Your task to perform on an android device: Clear the shopping cart on newegg.com. Add "dell xps" to the cart on newegg.com, then select checkout. Image 0: 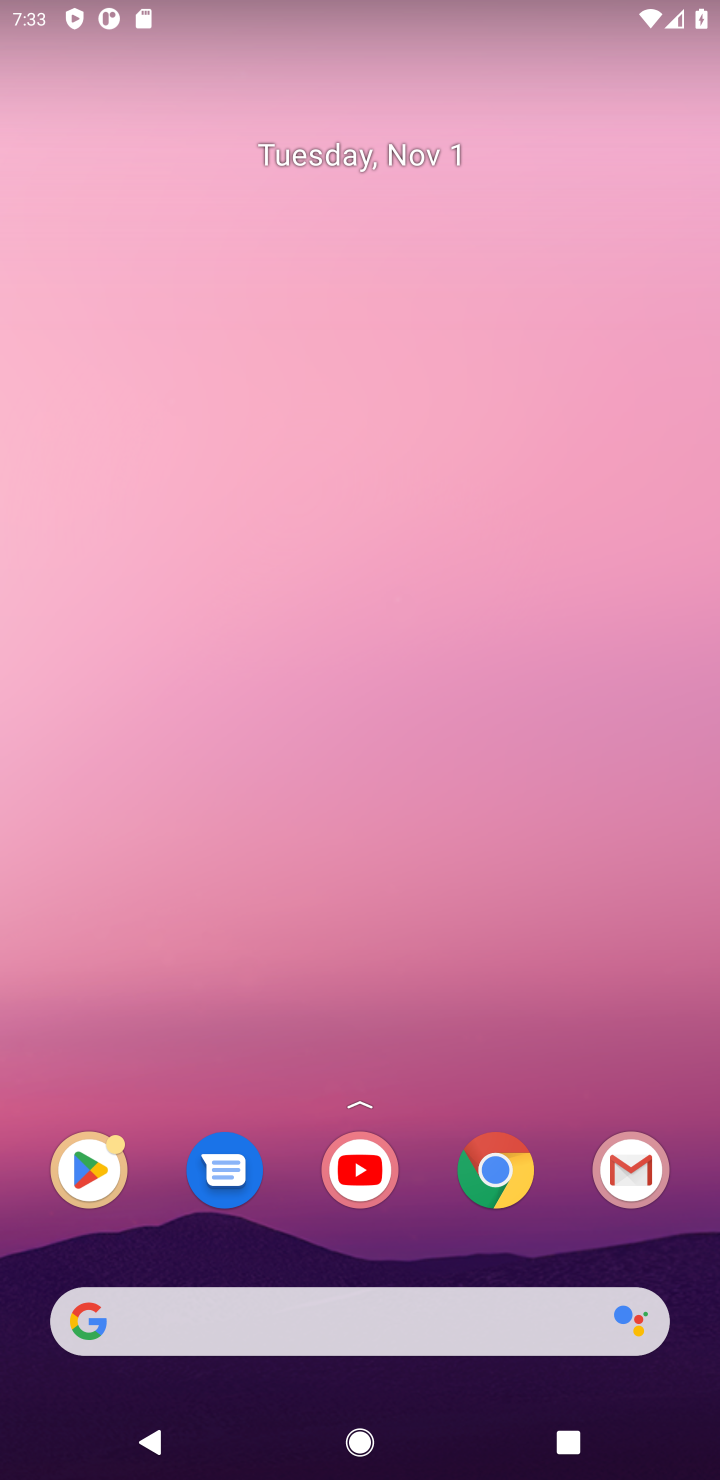
Step 0: click (515, 1177)
Your task to perform on an android device: Clear the shopping cart on newegg.com. Add "dell xps" to the cart on newegg.com, then select checkout. Image 1: 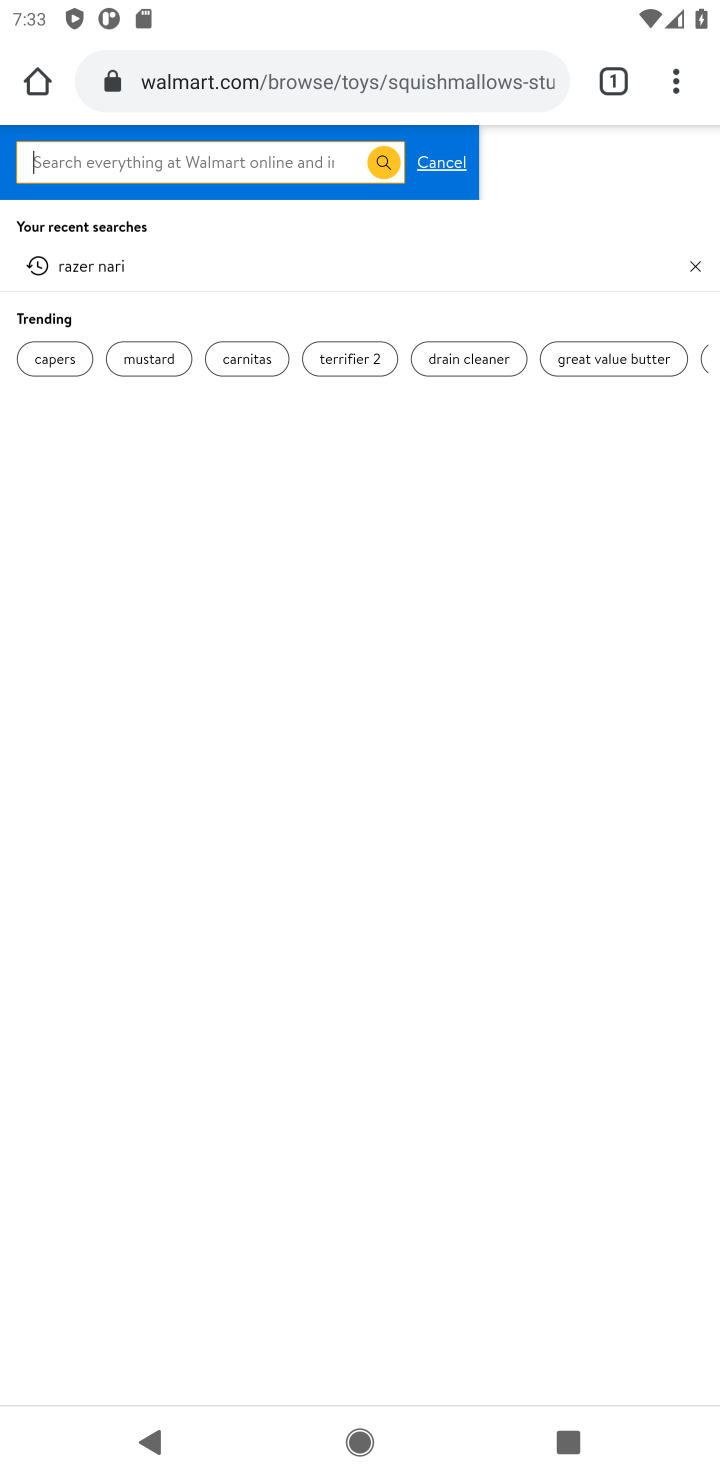
Step 1: click (512, 81)
Your task to perform on an android device: Clear the shopping cart on newegg.com. Add "dell xps" to the cart on newegg.com, then select checkout. Image 2: 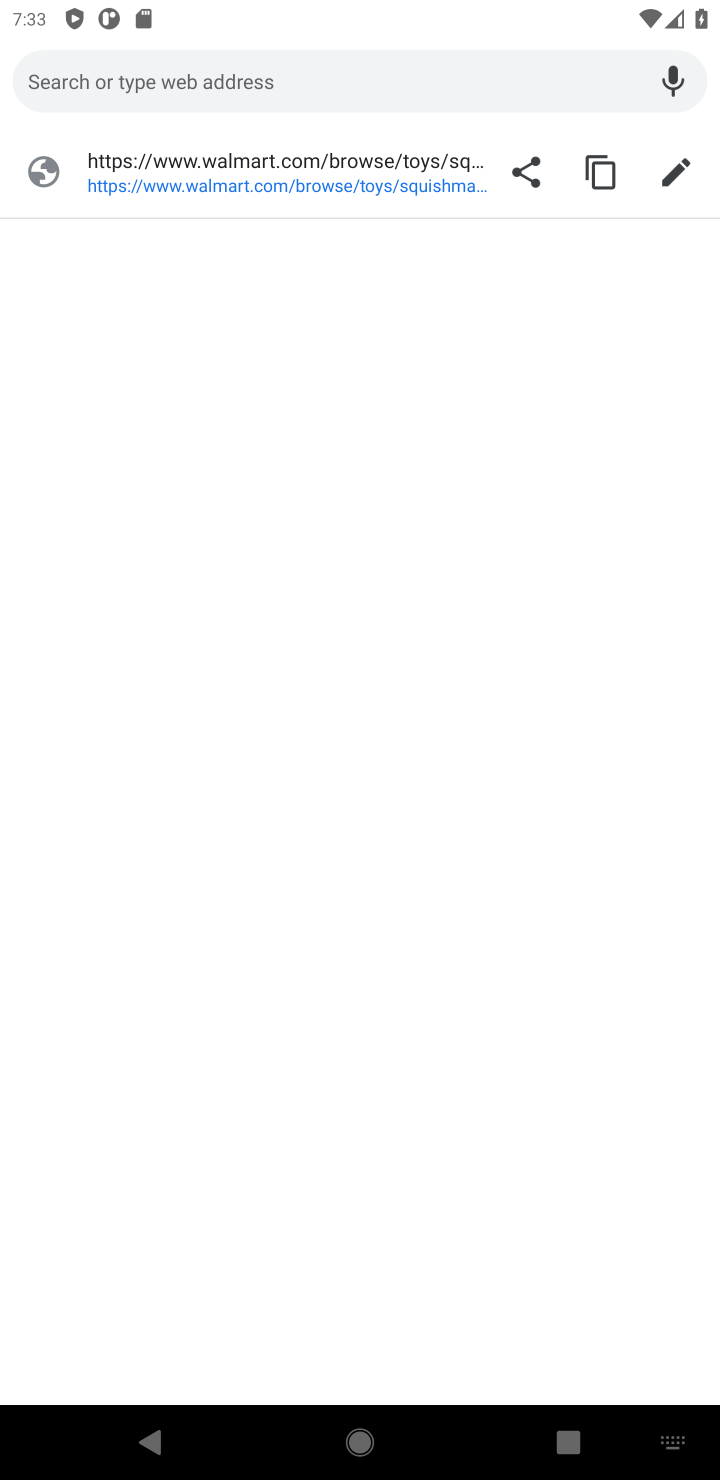
Step 2: type "newegg.com"
Your task to perform on an android device: Clear the shopping cart on newegg.com. Add "dell xps" to the cart on newegg.com, then select checkout. Image 3: 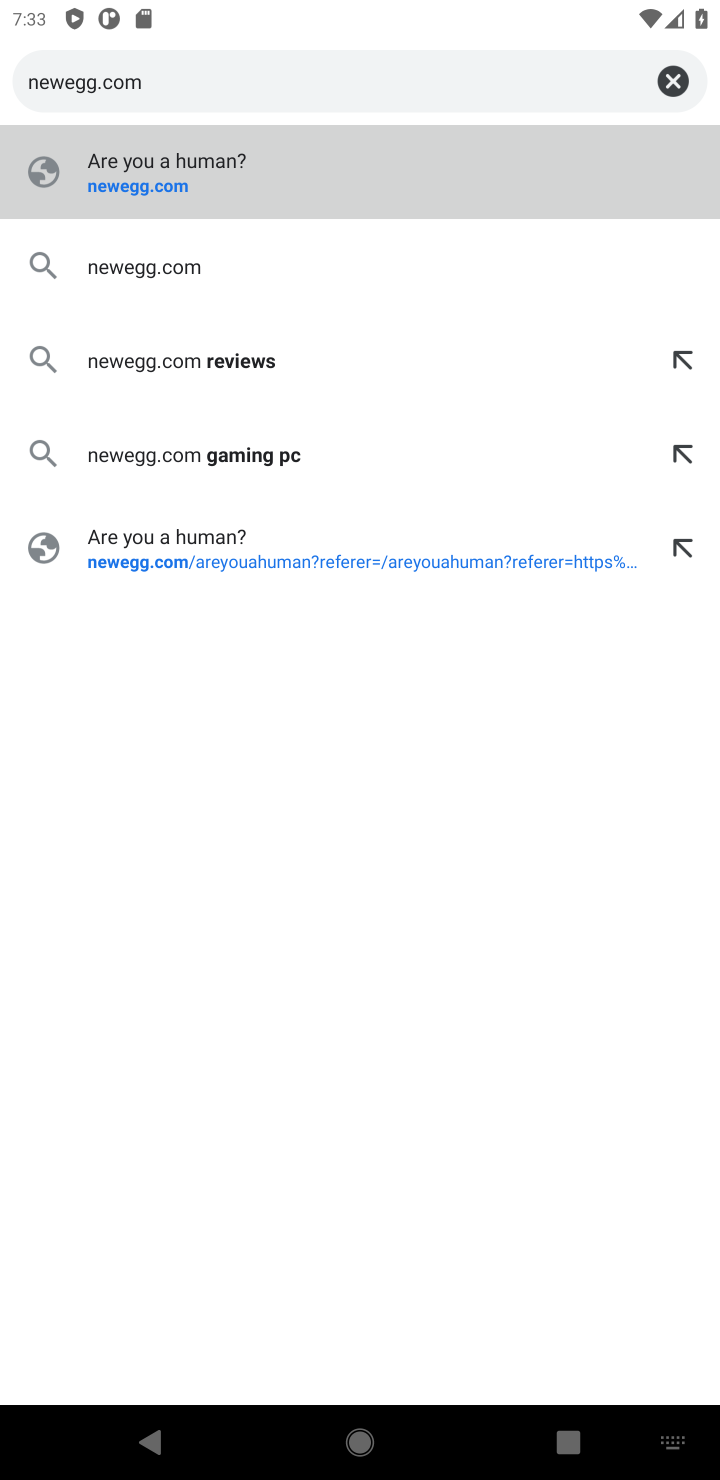
Step 3: type ""
Your task to perform on an android device: Clear the shopping cart on newegg.com. Add "dell xps" to the cart on newegg.com, then select checkout. Image 4: 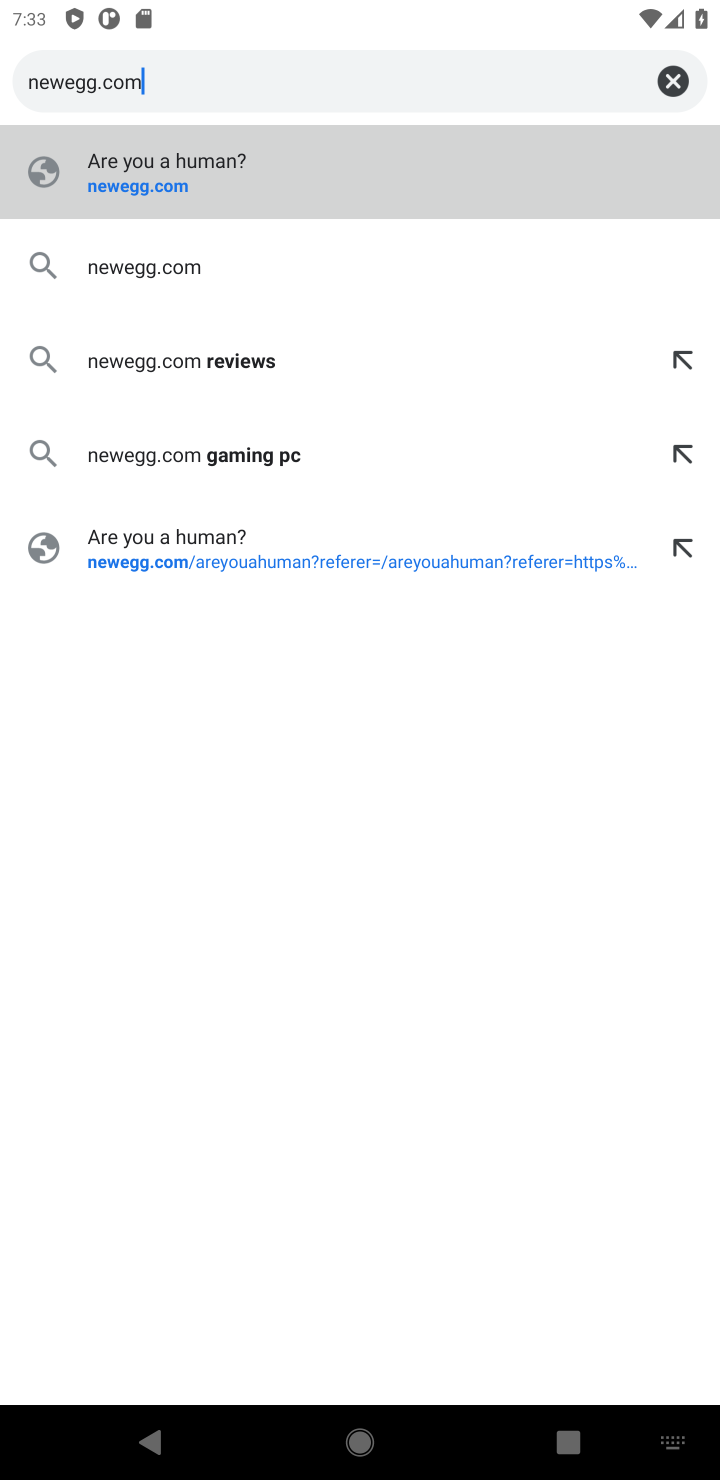
Step 4: press enter
Your task to perform on an android device: Clear the shopping cart on newegg.com. Add "dell xps" to the cart on newegg.com, then select checkout. Image 5: 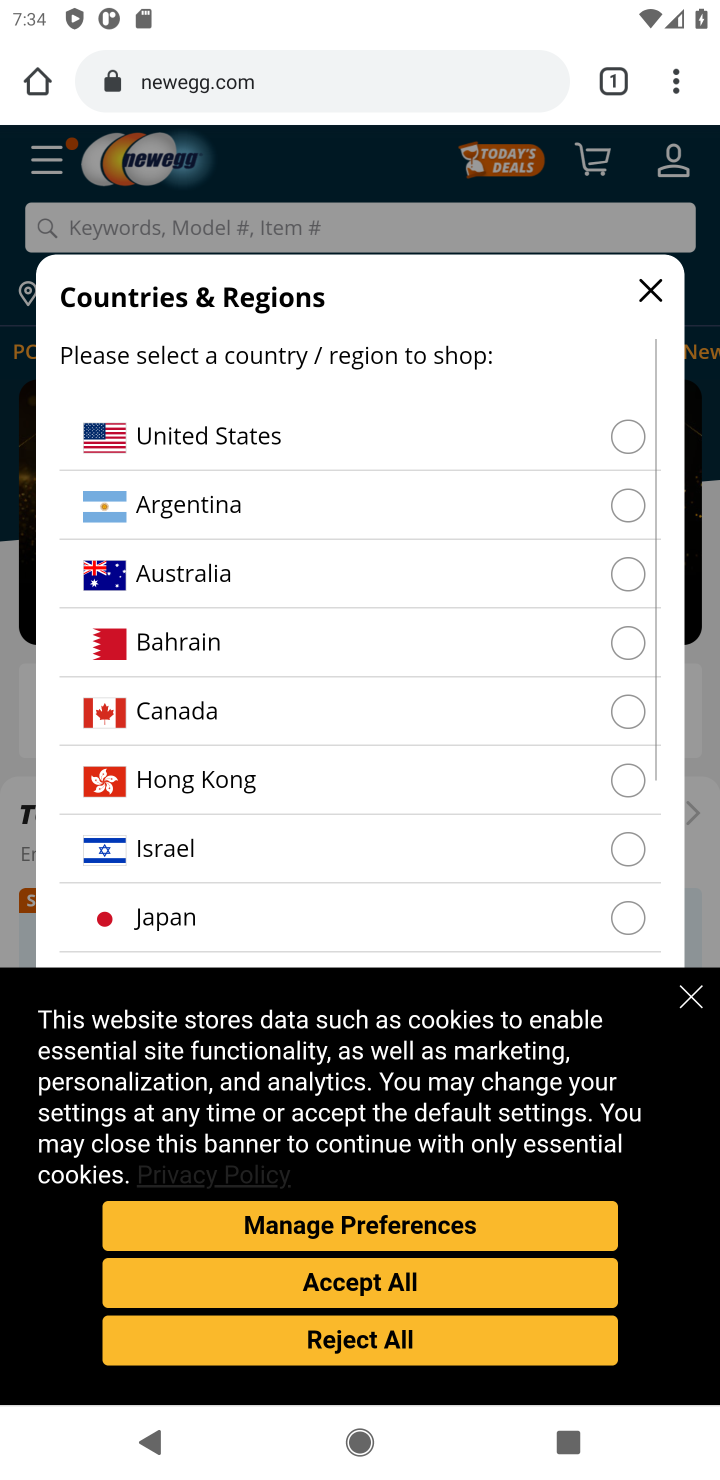
Step 5: click (390, 1284)
Your task to perform on an android device: Clear the shopping cart on newegg.com. Add "dell xps" to the cart on newegg.com, then select checkout. Image 6: 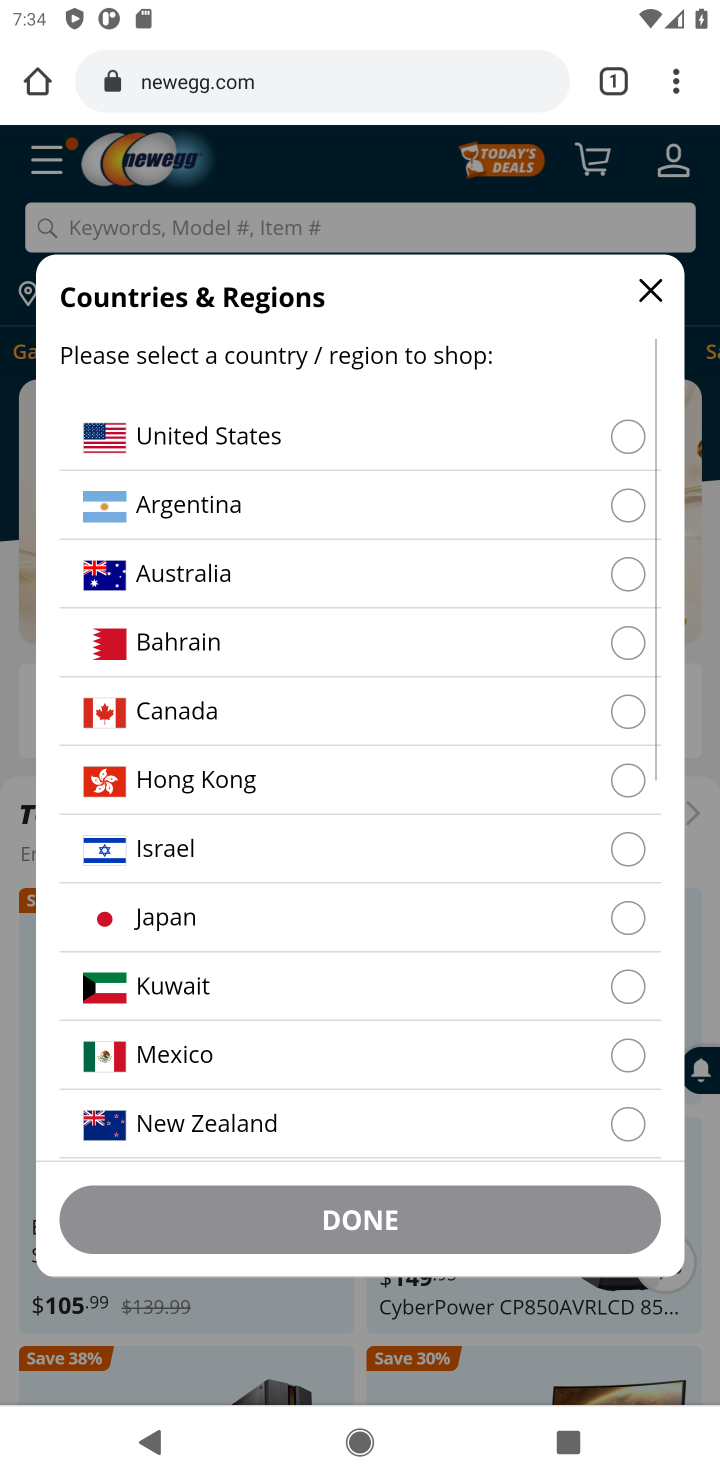
Step 6: click (619, 442)
Your task to perform on an android device: Clear the shopping cart on newegg.com. Add "dell xps" to the cart on newegg.com, then select checkout. Image 7: 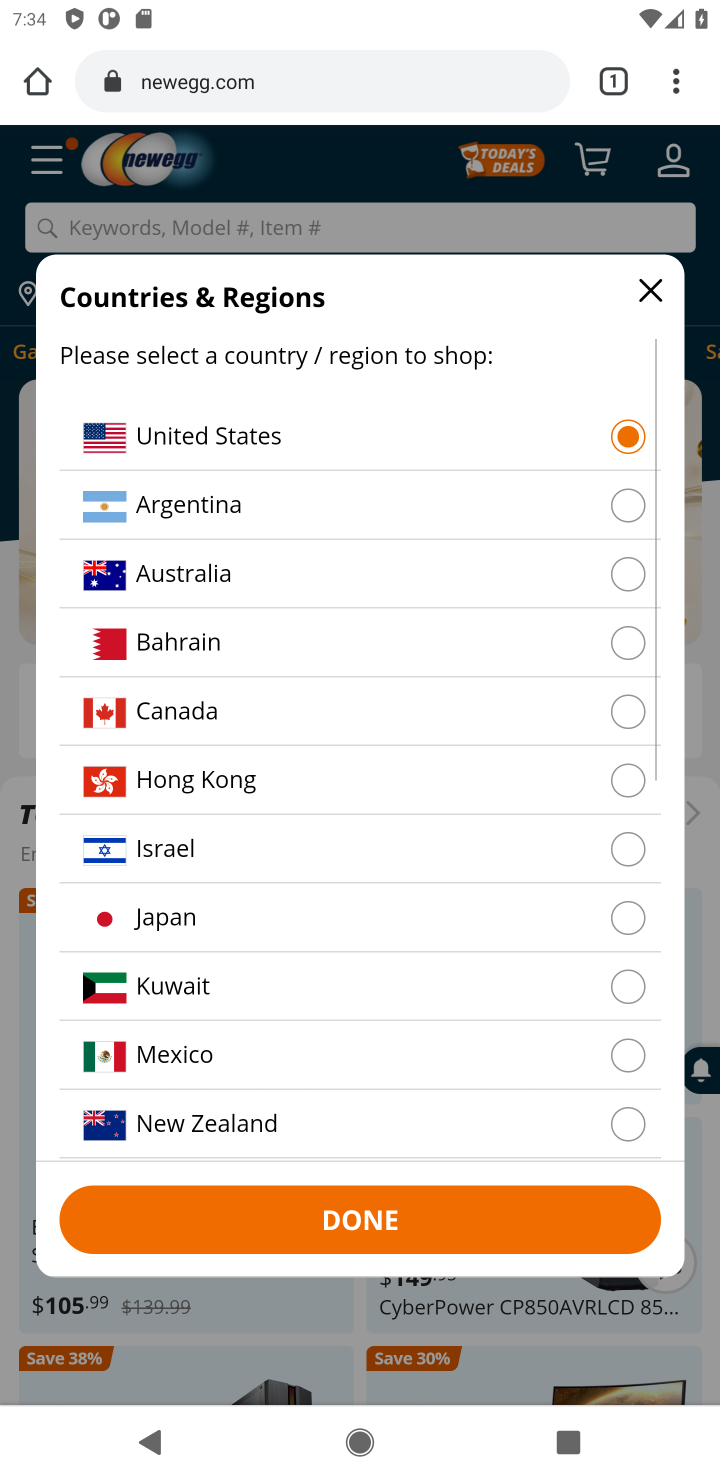
Step 7: click (450, 1222)
Your task to perform on an android device: Clear the shopping cart on newegg.com. Add "dell xps" to the cart on newegg.com, then select checkout. Image 8: 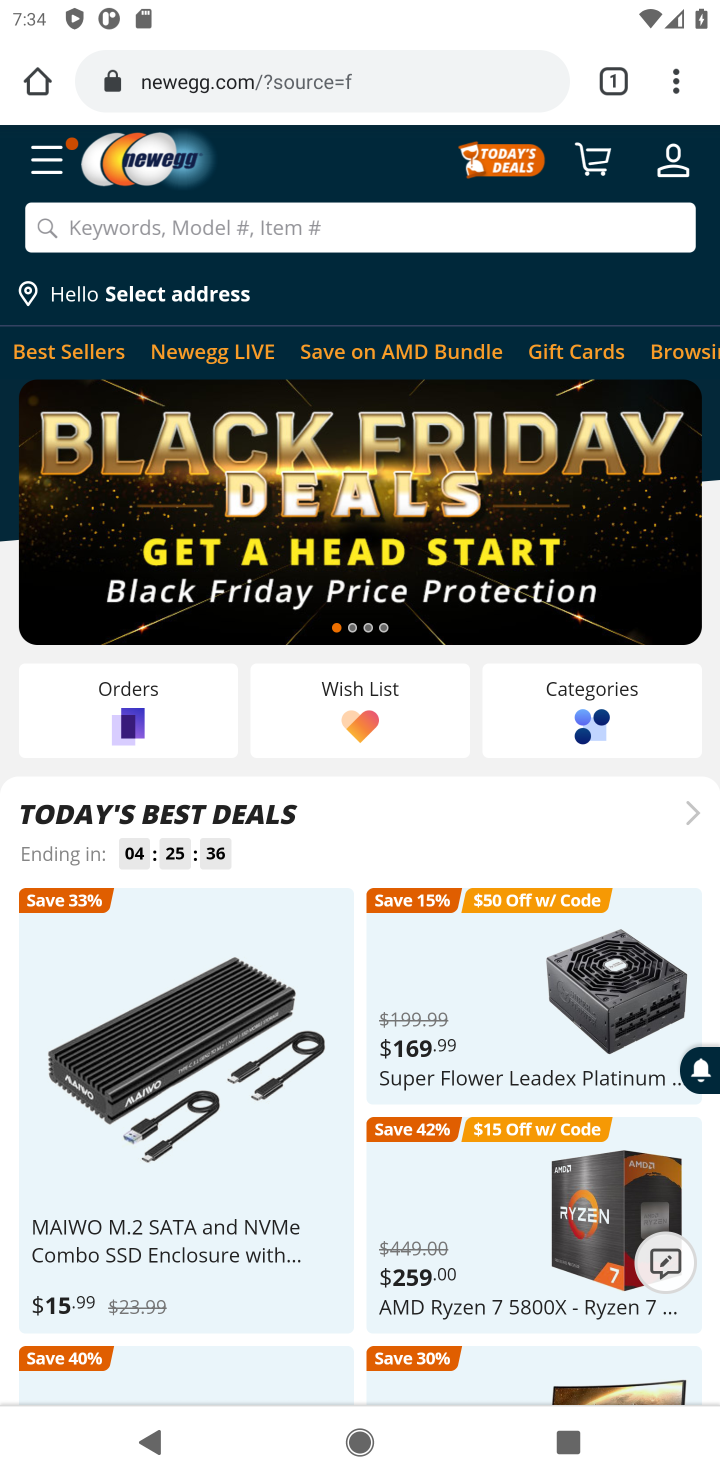
Step 8: click (586, 168)
Your task to perform on an android device: Clear the shopping cart on newegg.com. Add "dell xps" to the cart on newegg.com, then select checkout. Image 9: 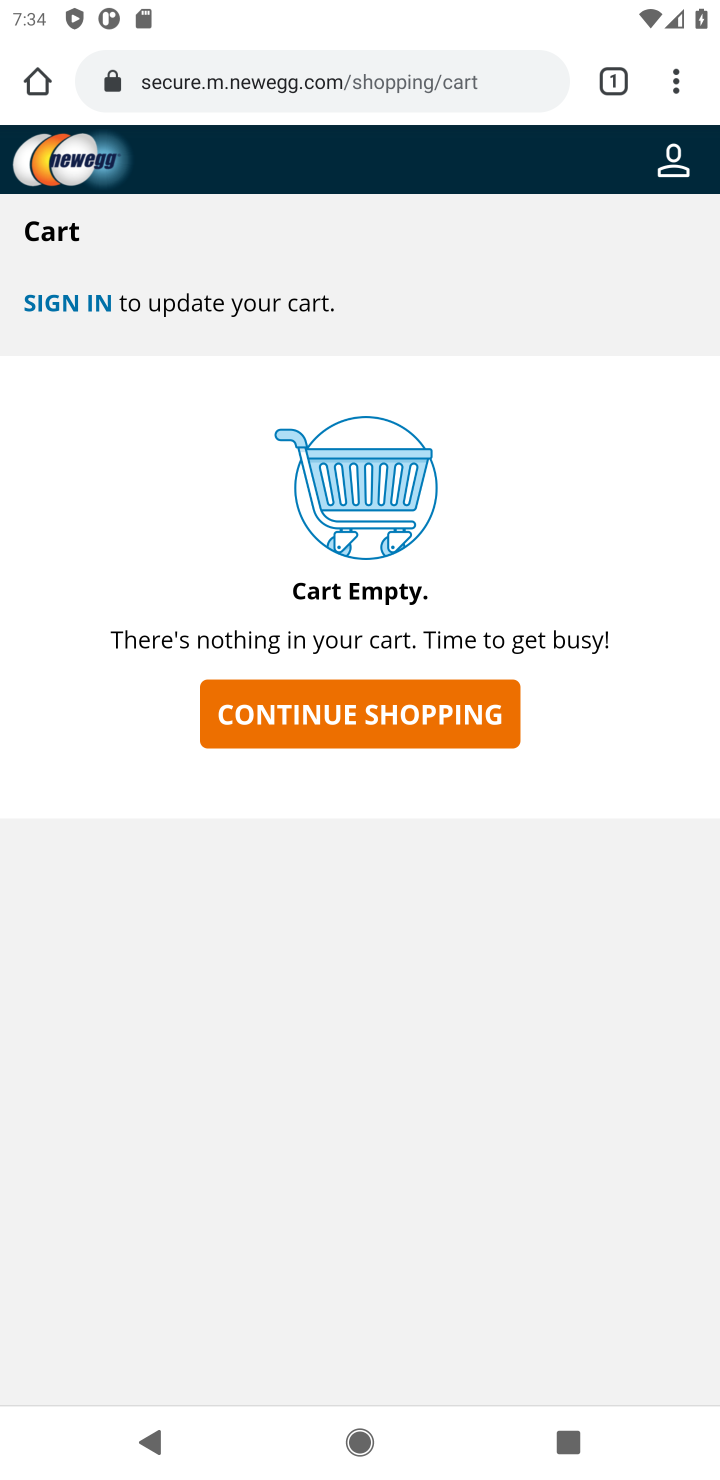
Step 9: click (396, 726)
Your task to perform on an android device: Clear the shopping cart on newegg.com. Add "dell xps" to the cart on newegg.com, then select checkout. Image 10: 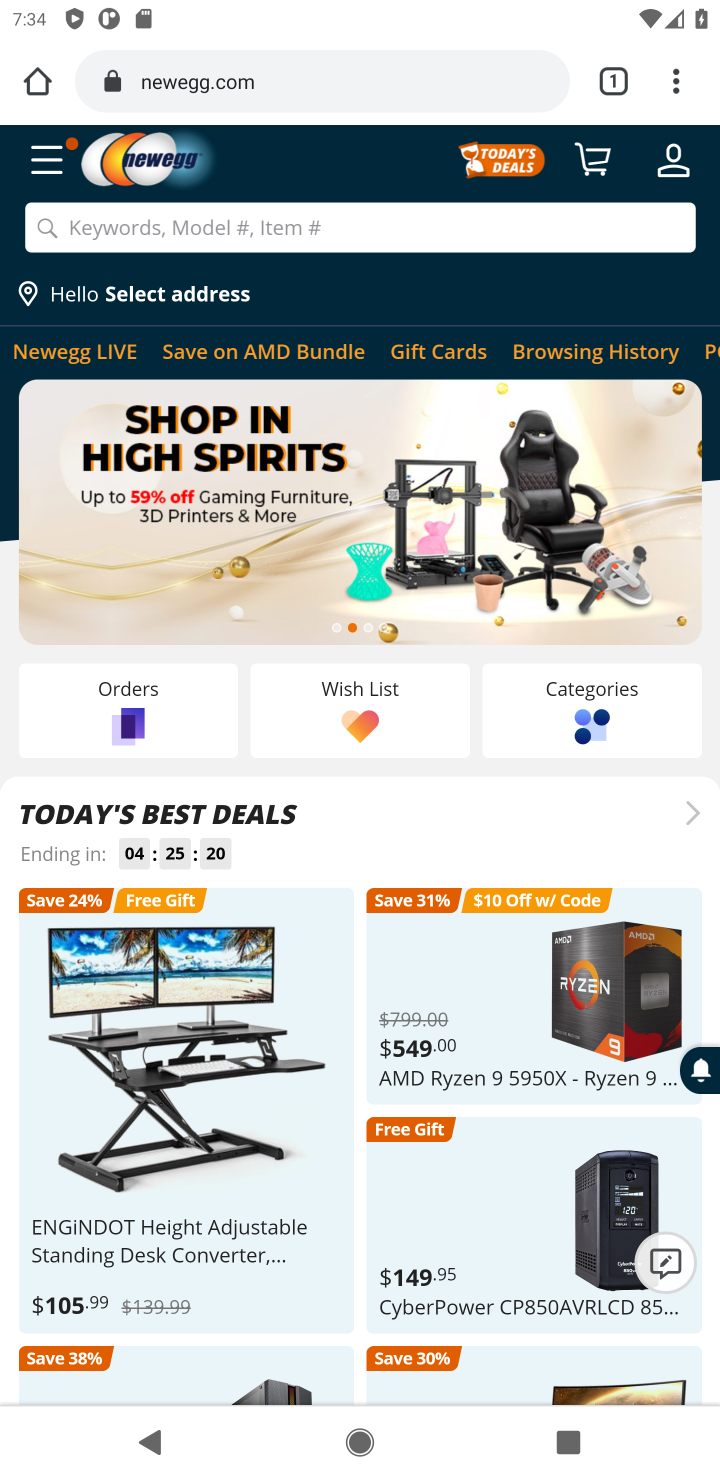
Step 10: click (271, 216)
Your task to perform on an android device: Clear the shopping cart on newegg.com. Add "dell xps" to the cart on newegg.com, then select checkout. Image 11: 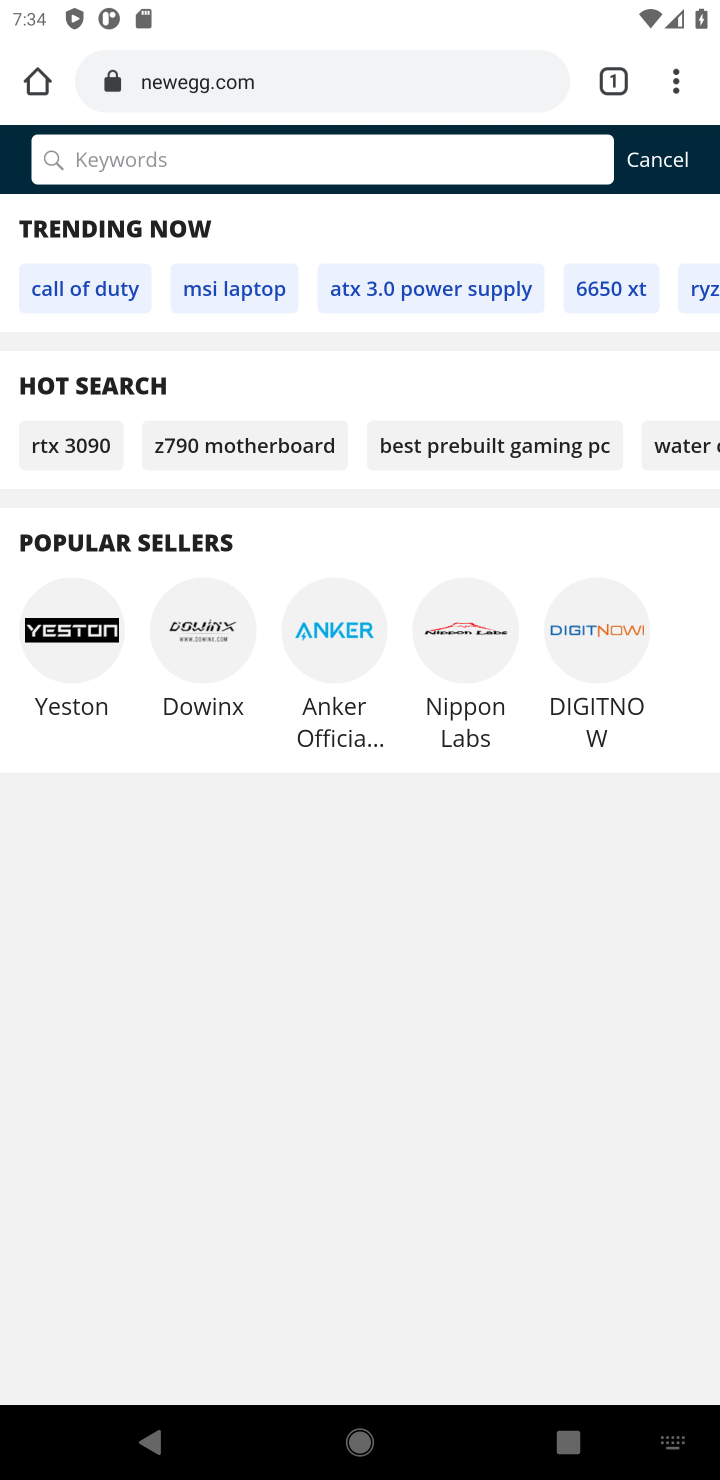
Step 11: type "dell xps"
Your task to perform on an android device: Clear the shopping cart on newegg.com. Add "dell xps" to the cart on newegg.com, then select checkout. Image 12: 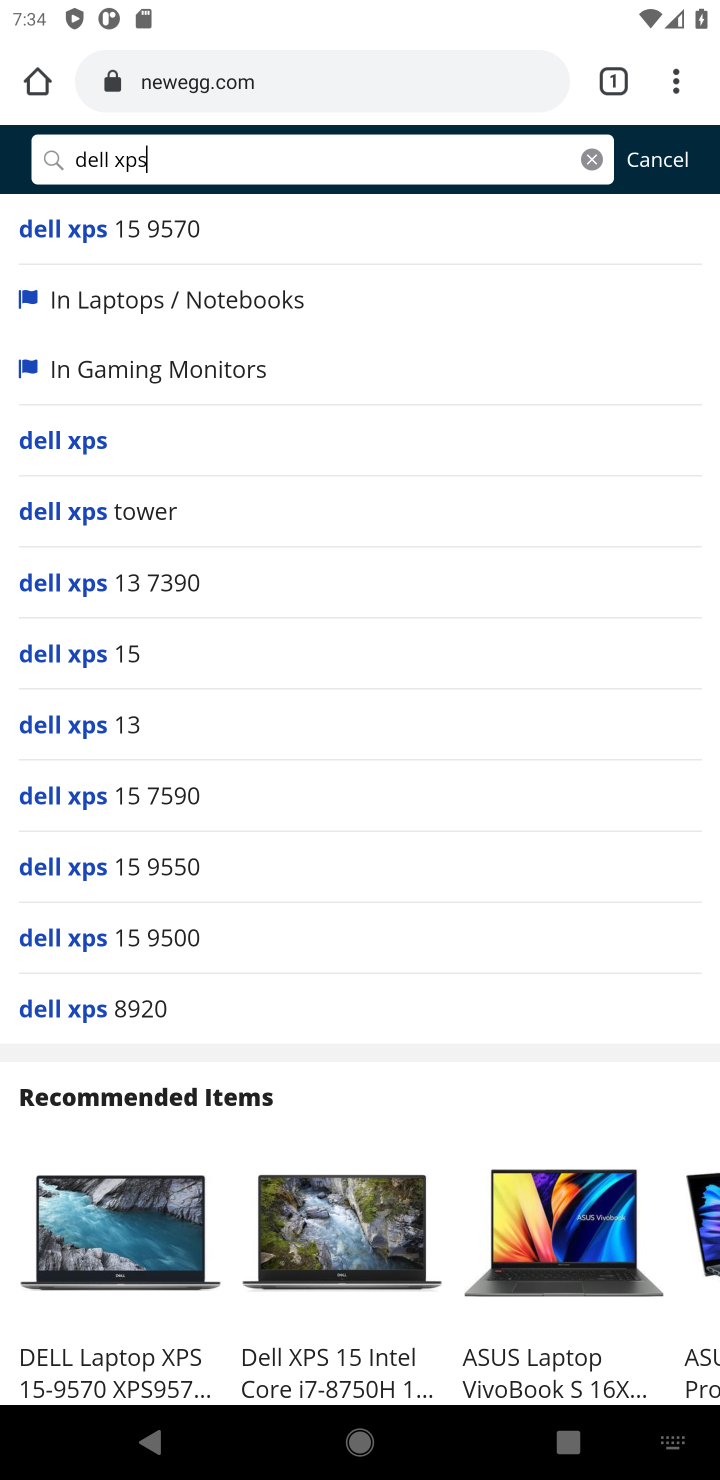
Step 12: press enter
Your task to perform on an android device: Clear the shopping cart on newegg.com. Add "dell xps" to the cart on newegg.com, then select checkout. Image 13: 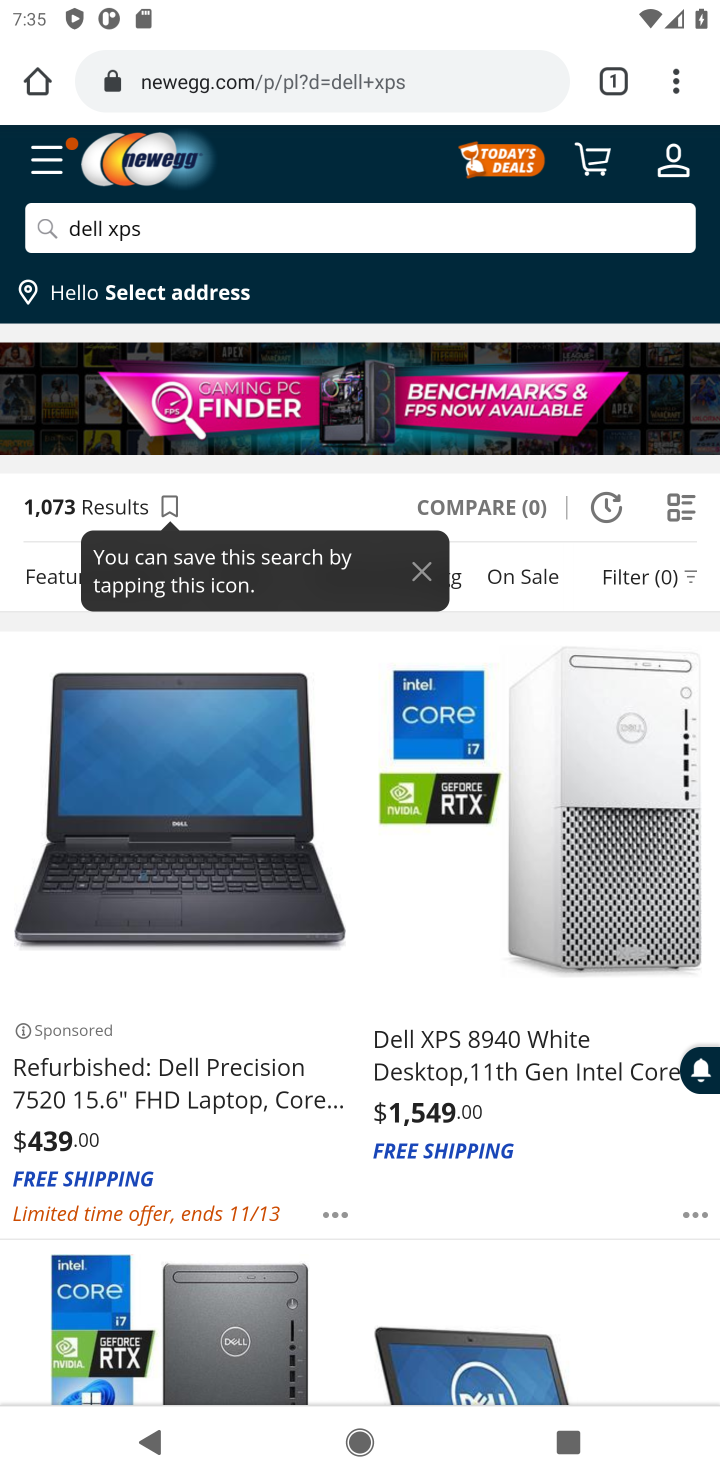
Step 13: click (506, 1006)
Your task to perform on an android device: Clear the shopping cart on newegg.com. Add "dell xps" to the cart on newegg.com, then select checkout. Image 14: 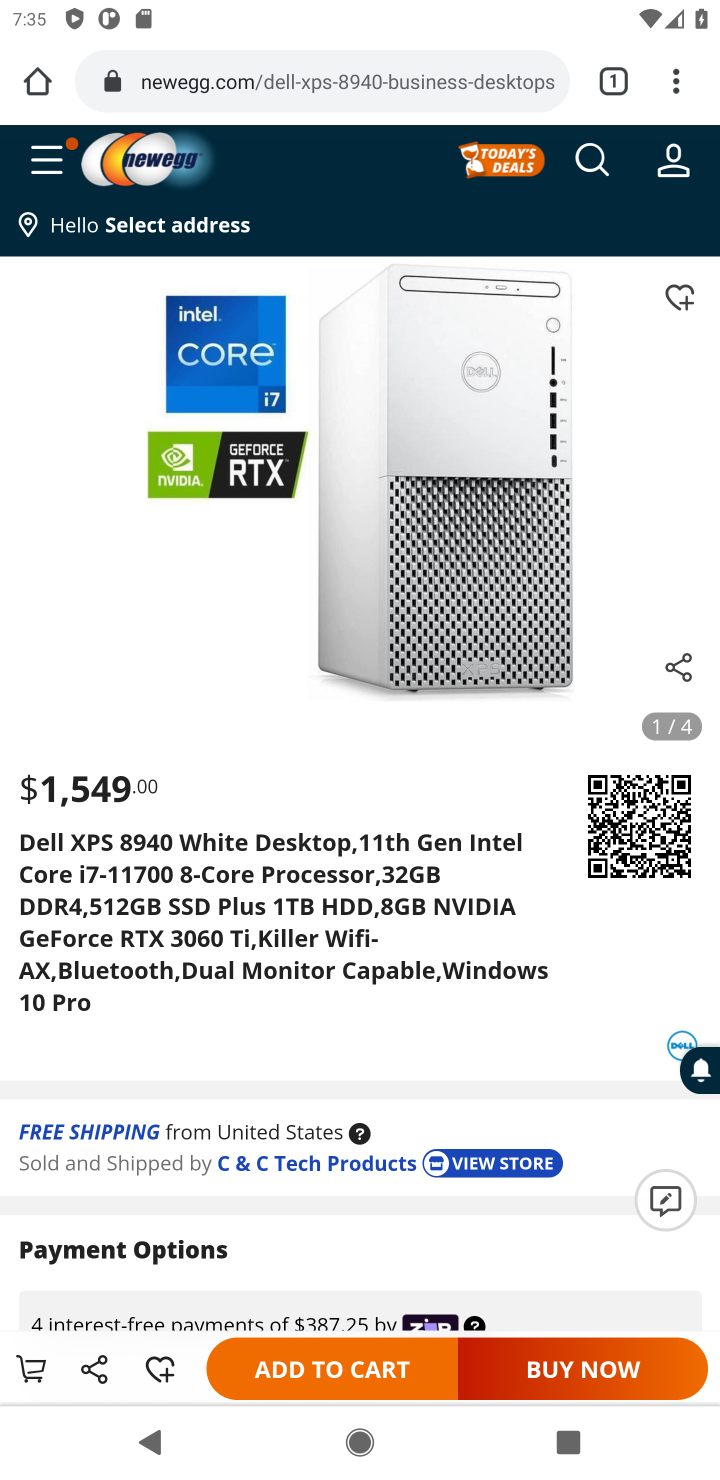
Step 14: click (316, 1372)
Your task to perform on an android device: Clear the shopping cart on newegg.com. Add "dell xps" to the cart on newegg.com, then select checkout. Image 15: 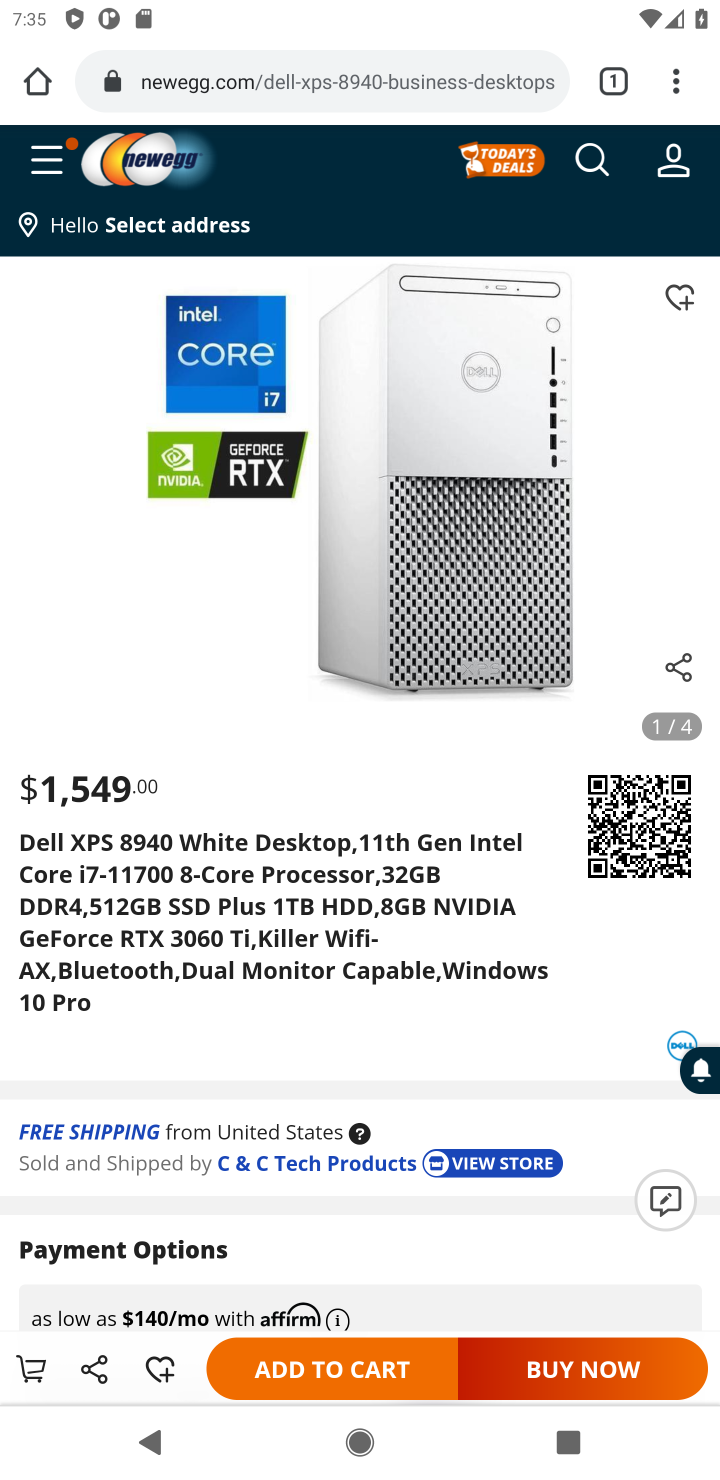
Step 15: drag from (436, 1231) to (360, 856)
Your task to perform on an android device: Clear the shopping cart on newegg.com. Add "dell xps" to the cart on newegg.com, then select checkout. Image 16: 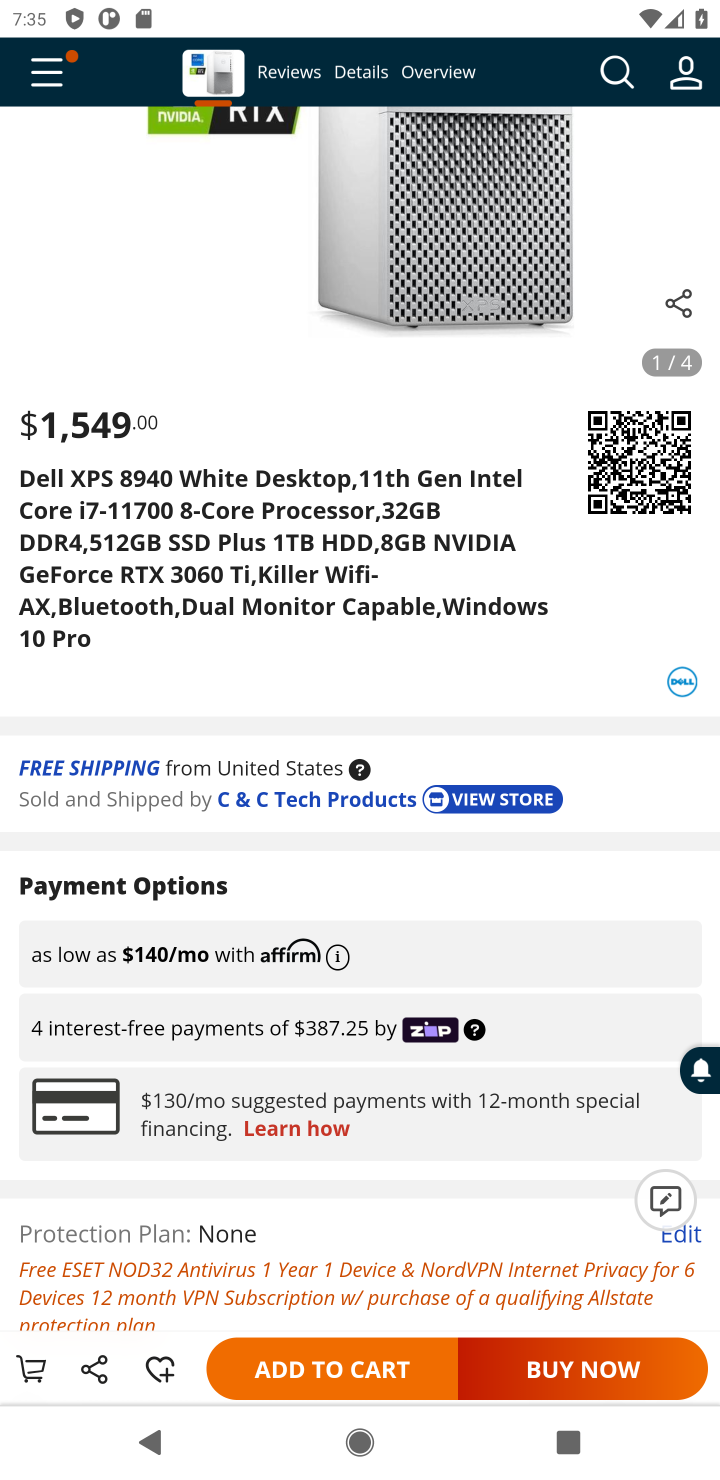
Step 16: click (320, 1361)
Your task to perform on an android device: Clear the shopping cart on newegg.com. Add "dell xps" to the cart on newegg.com, then select checkout. Image 17: 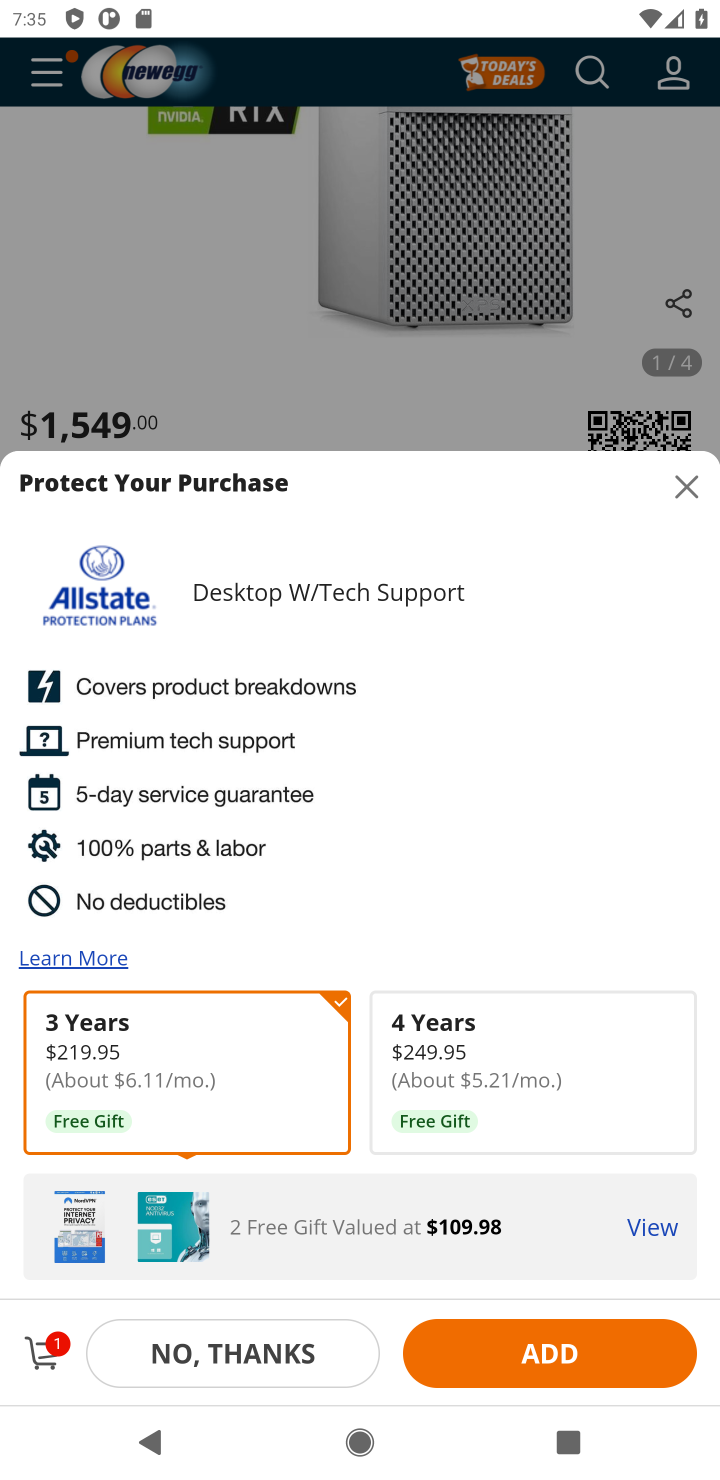
Step 17: click (223, 1341)
Your task to perform on an android device: Clear the shopping cart on newegg.com. Add "dell xps" to the cart on newegg.com, then select checkout. Image 18: 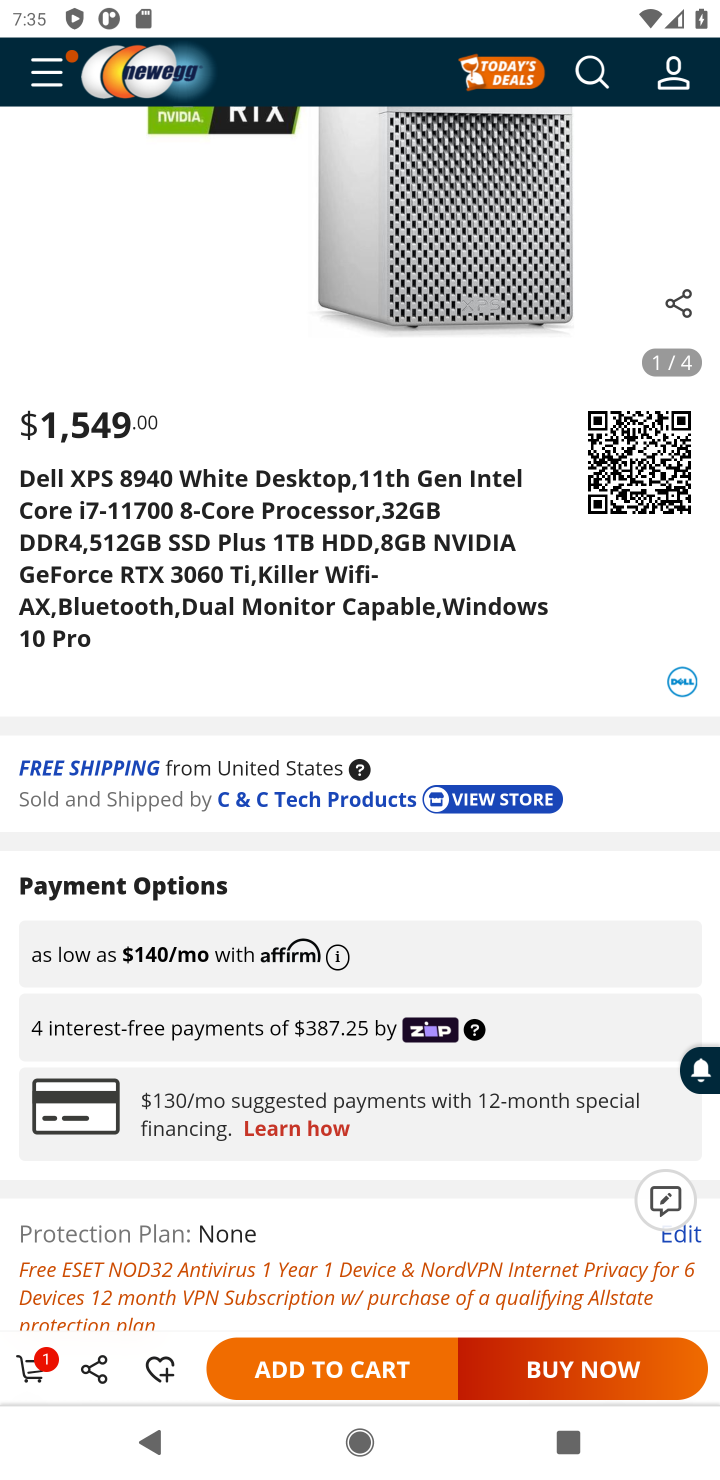
Step 18: click (29, 1371)
Your task to perform on an android device: Clear the shopping cart on newegg.com. Add "dell xps" to the cart on newegg.com, then select checkout. Image 19: 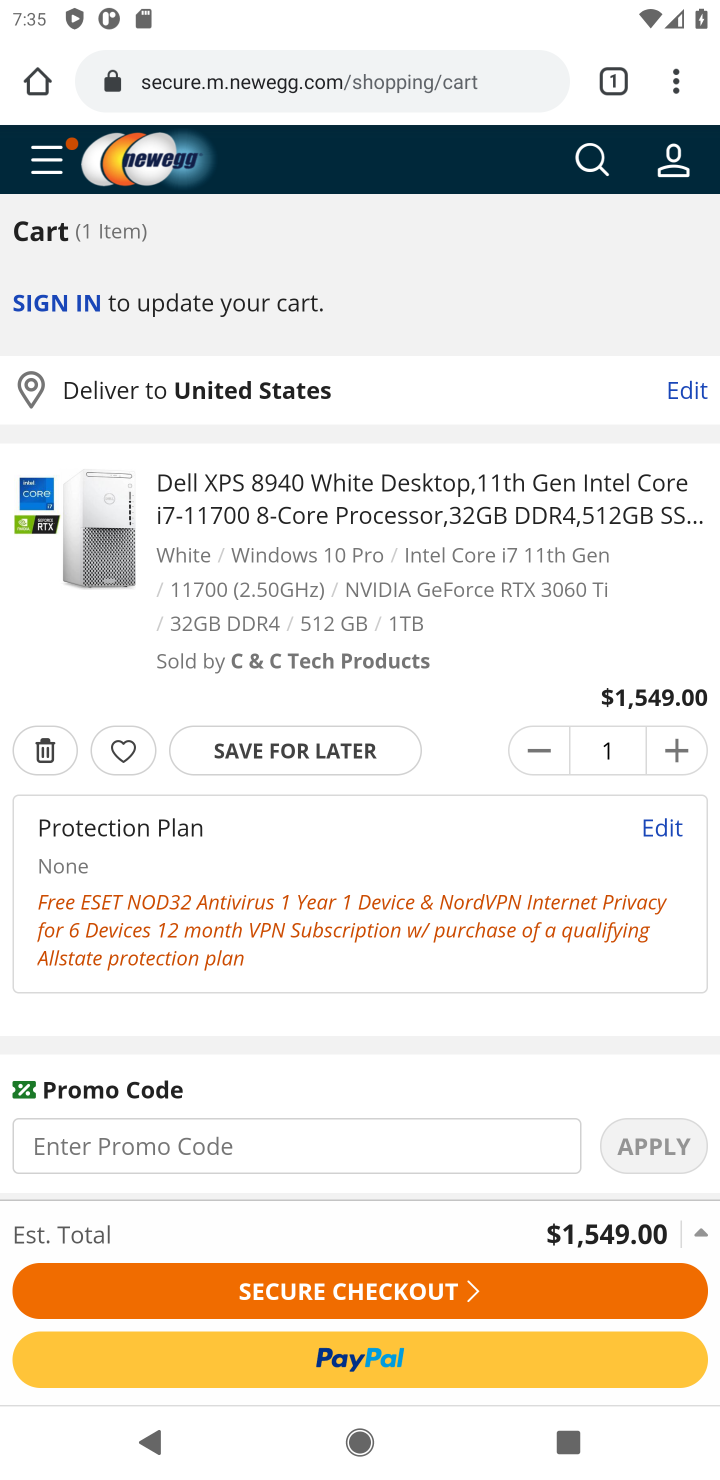
Step 19: click (134, 1302)
Your task to perform on an android device: Clear the shopping cart on newegg.com. Add "dell xps" to the cart on newegg.com, then select checkout. Image 20: 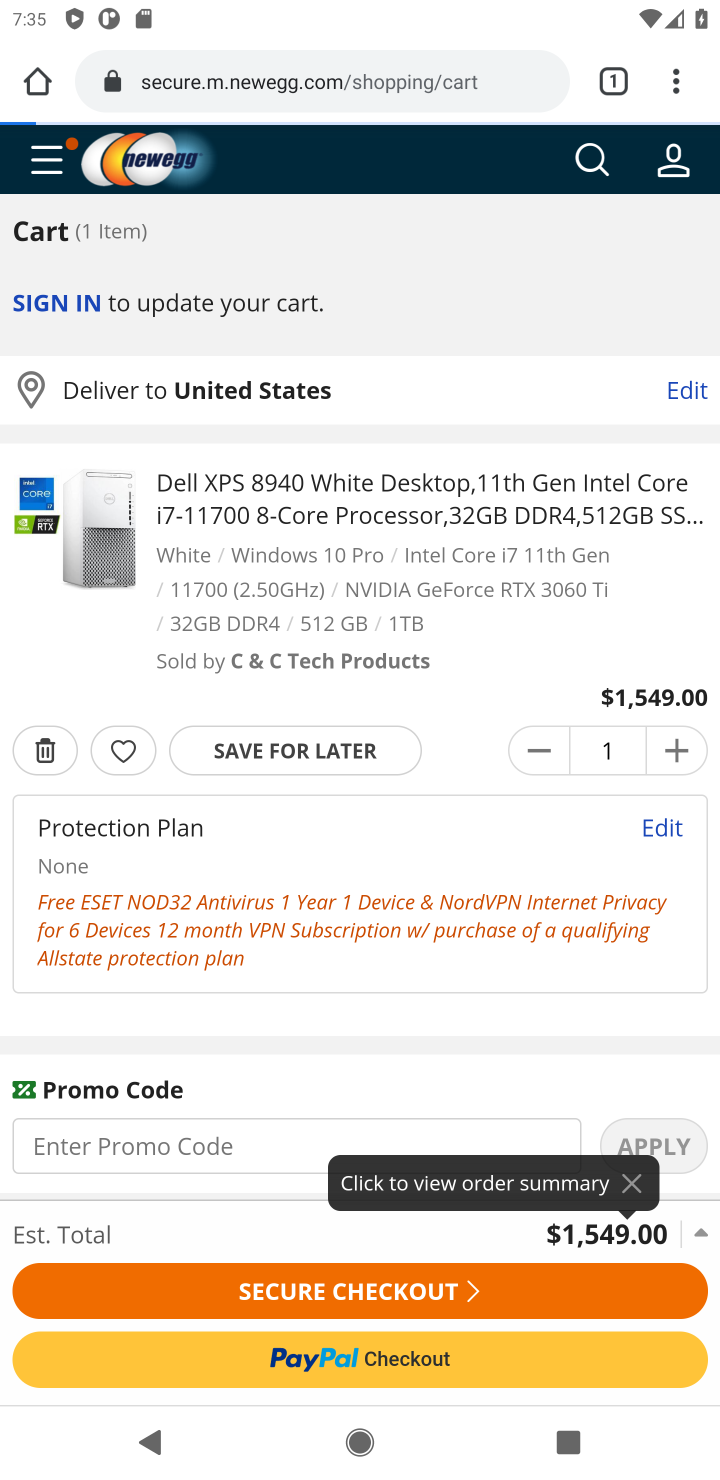
Step 20: click (405, 1285)
Your task to perform on an android device: Clear the shopping cart on newegg.com. Add "dell xps" to the cart on newegg.com, then select checkout. Image 21: 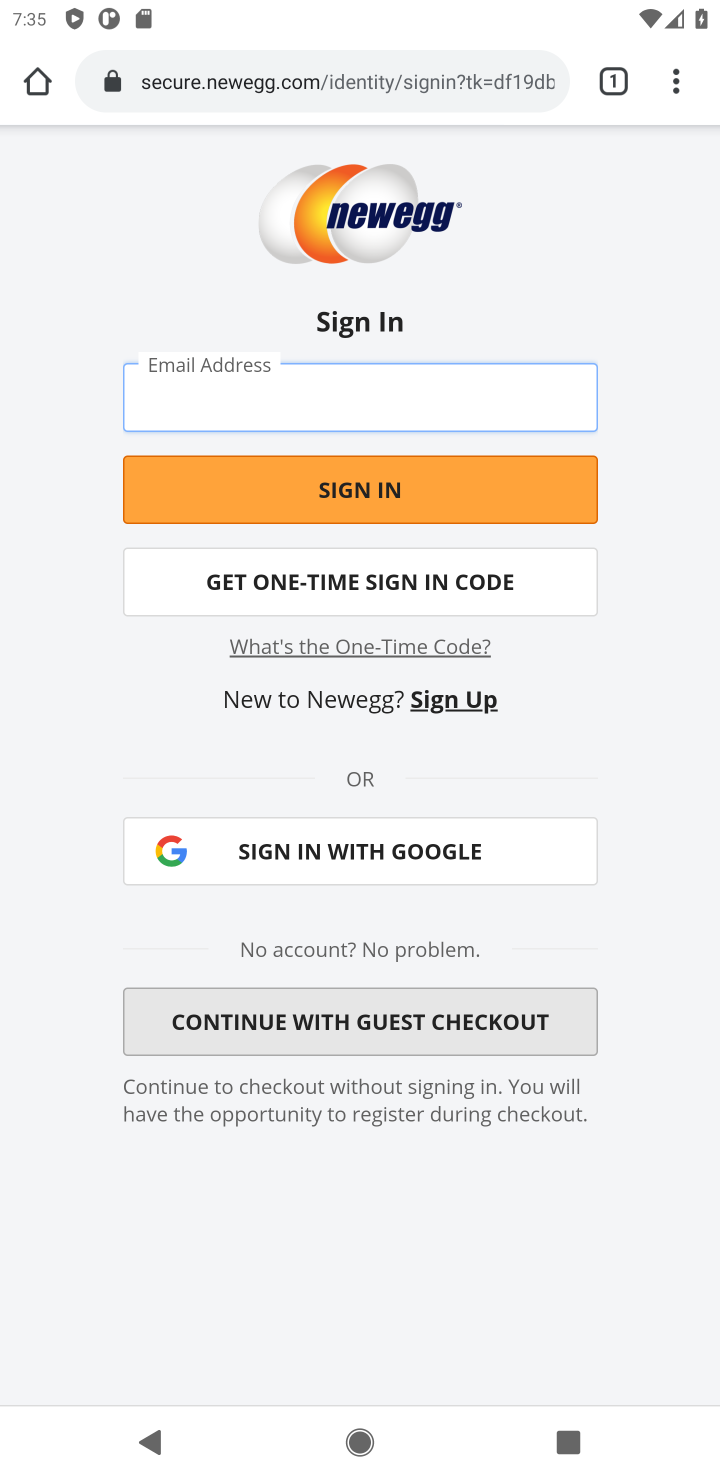
Step 21: task complete